Your task to perform on an android device: check android version Image 0: 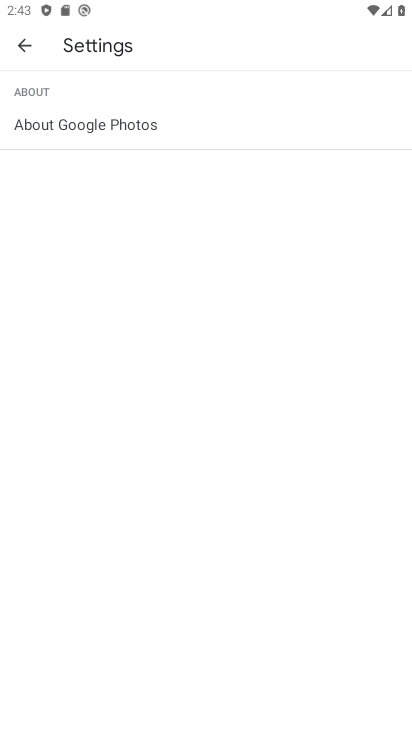
Step 0: press home button
Your task to perform on an android device: check android version Image 1: 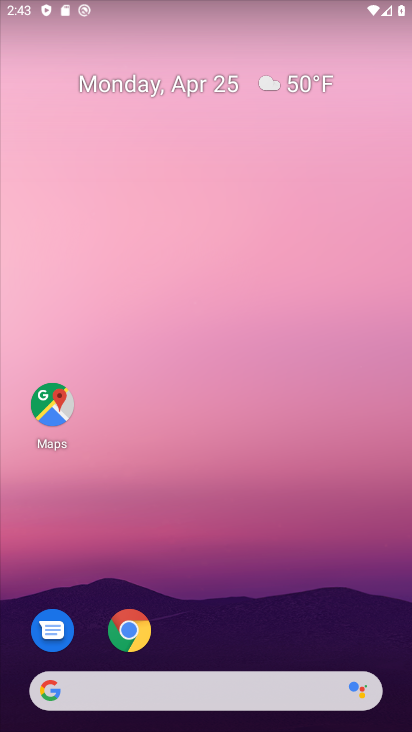
Step 1: drag from (218, 604) to (42, 46)
Your task to perform on an android device: check android version Image 2: 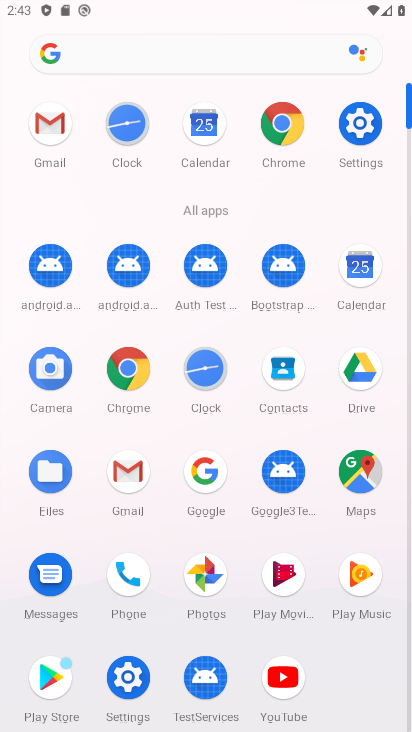
Step 2: click (363, 135)
Your task to perform on an android device: check android version Image 3: 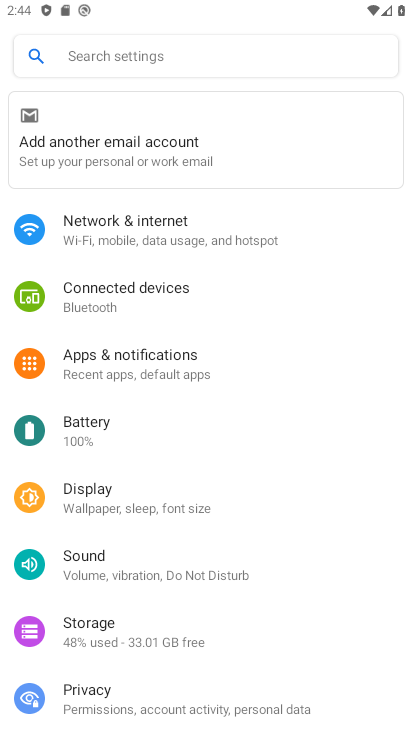
Step 3: drag from (181, 675) to (229, 140)
Your task to perform on an android device: check android version Image 4: 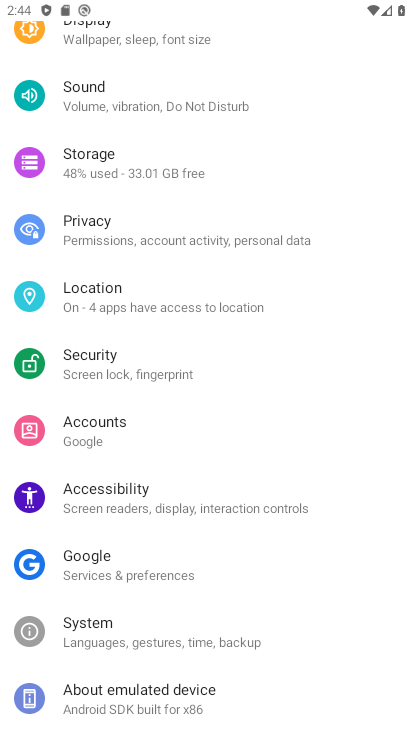
Step 4: click (190, 696)
Your task to perform on an android device: check android version Image 5: 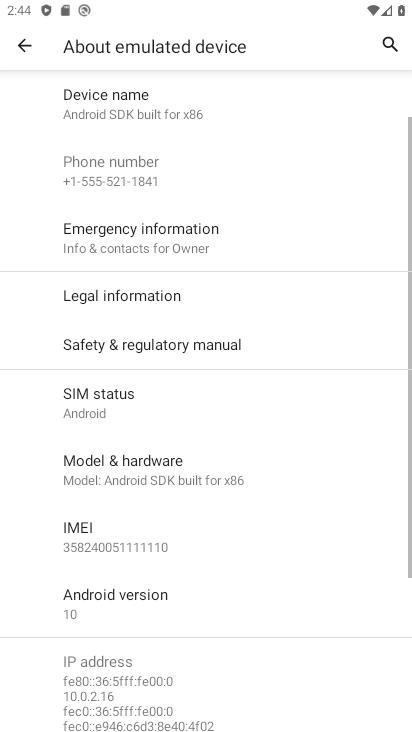
Step 5: task complete